Your task to perform on an android device: change timer sound Image 0: 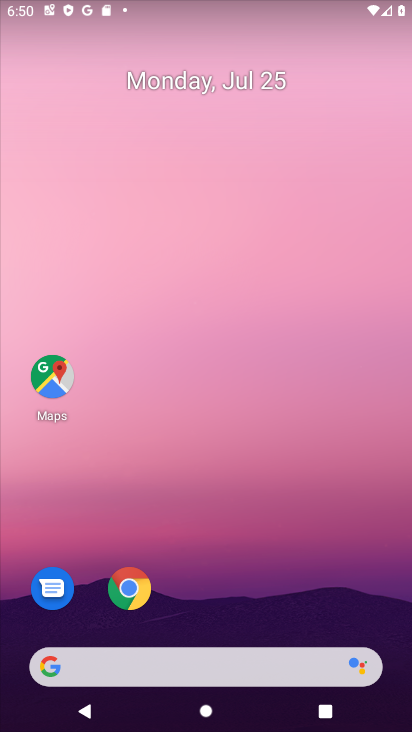
Step 0: click (262, 283)
Your task to perform on an android device: change timer sound Image 1: 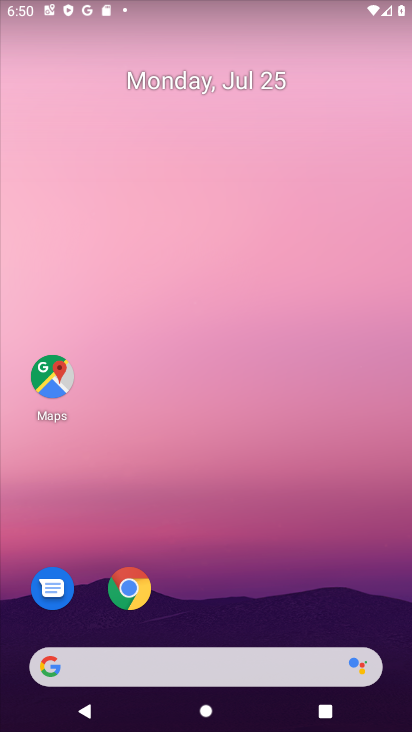
Step 1: drag from (289, 539) to (307, 167)
Your task to perform on an android device: change timer sound Image 2: 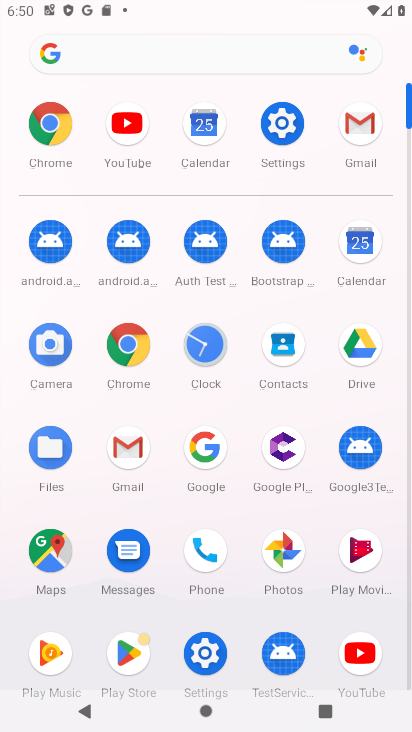
Step 2: click (205, 346)
Your task to perform on an android device: change timer sound Image 3: 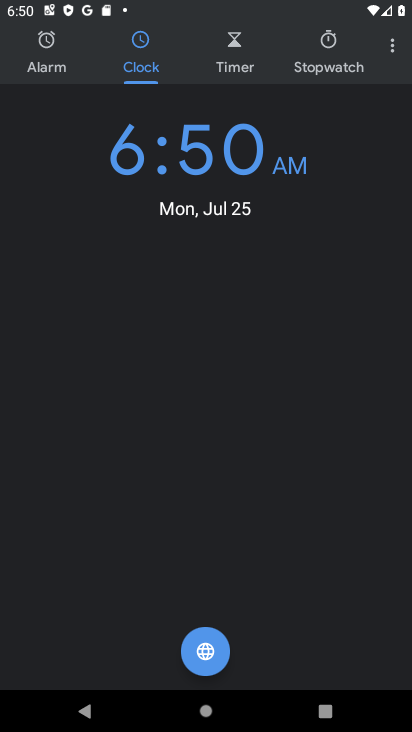
Step 3: click (386, 46)
Your task to perform on an android device: change timer sound Image 4: 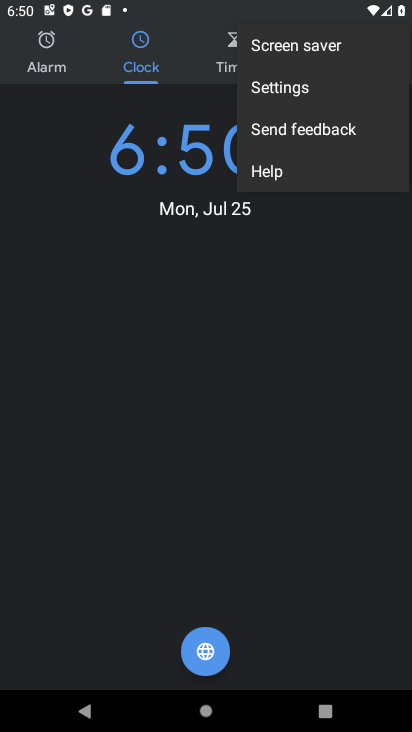
Step 4: click (300, 89)
Your task to perform on an android device: change timer sound Image 5: 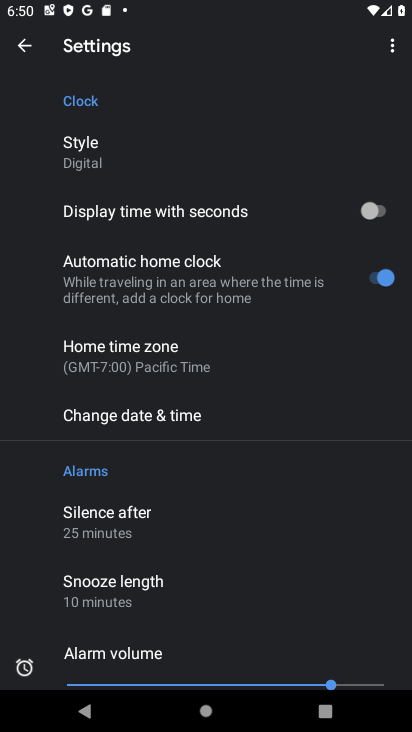
Step 5: drag from (283, 563) to (338, 405)
Your task to perform on an android device: change timer sound Image 6: 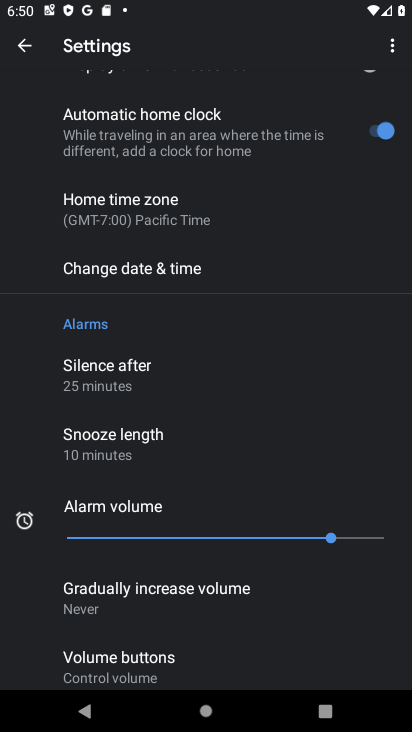
Step 6: drag from (270, 595) to (328, 292)
Your task to perform on an android device: change timer sound Image 7: 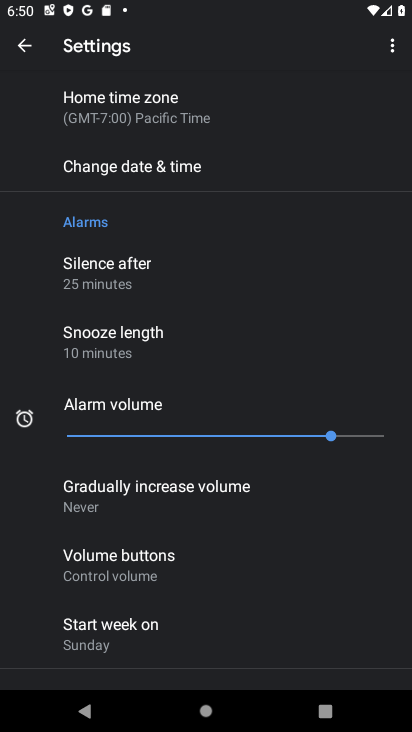
Step 7: drag from (209, 593) to (249, 419)
Your task to perform on an android device: change timer sound Image 8: 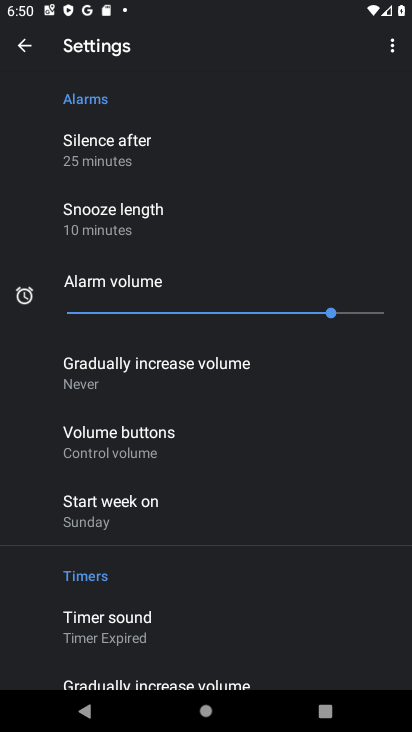
Step 8: drag from (191, 552) to (204, 443)
Your task to perform on an android device: change timer sound Image 9: 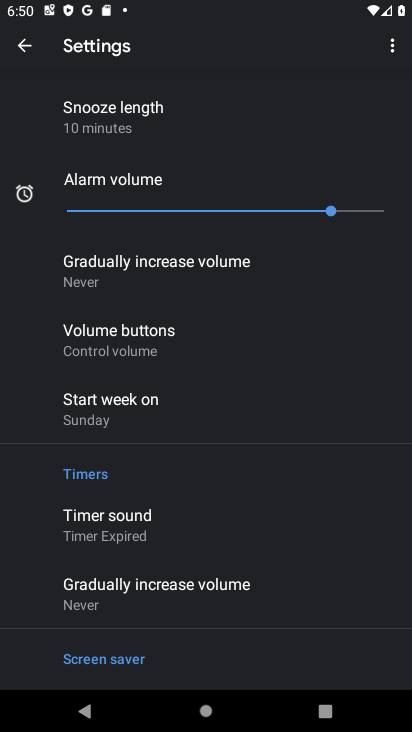
Step 9: click (135, 531)
Your task to perform on an android device: change timer sound Image 10: 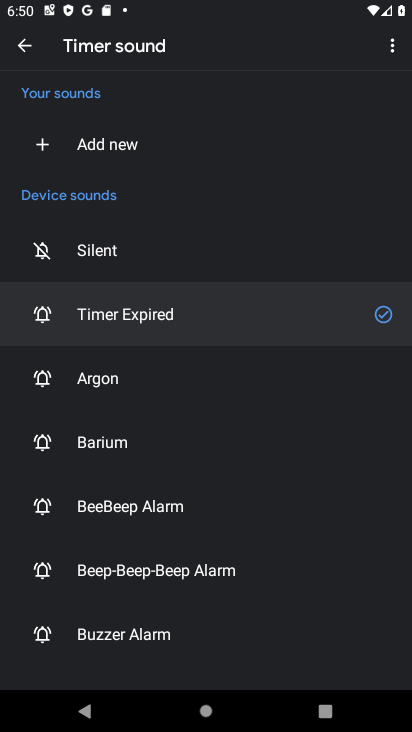
Step 10: click (85, 395)
Your task to perform on an android device: change timer sound Image 11: 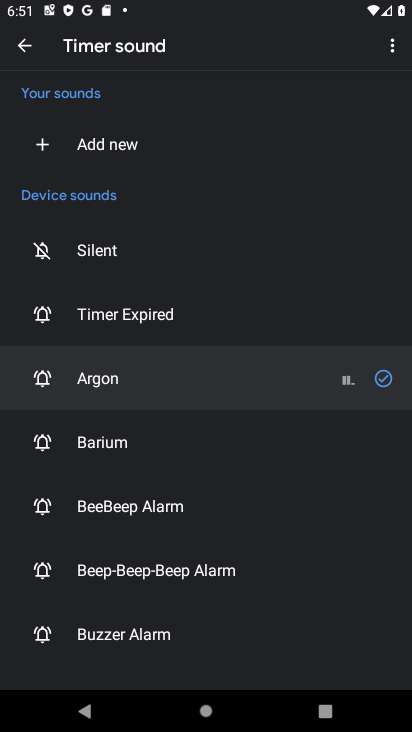
Step 11: task complete